Your task to perform on an android device: Search for razer nari on newegg.com, select the first entry, and add it to the cart. Image 0: 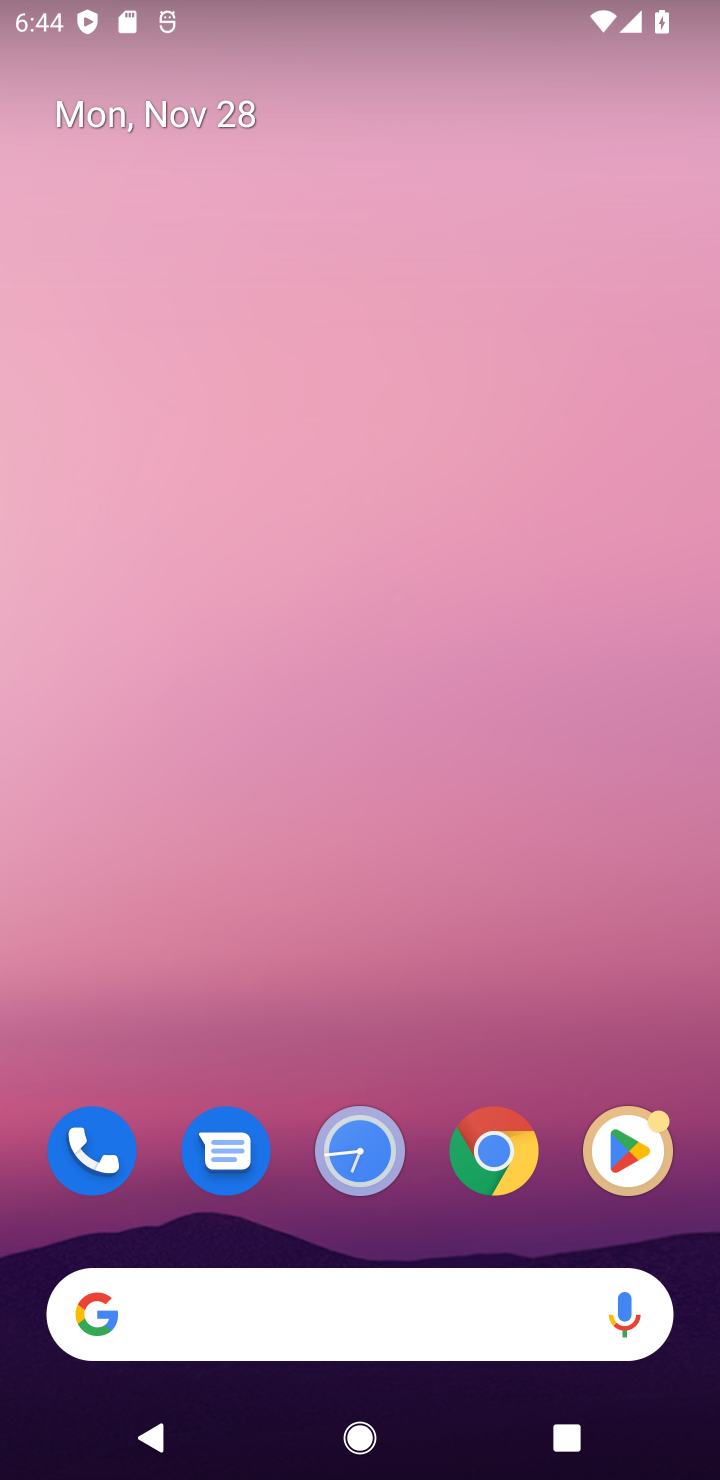
Step 0: click (358, 1323)
Your task to perform on an android device: Search for razer nari on newegg.com, select the first entry, and add it to the cart. Image 1: 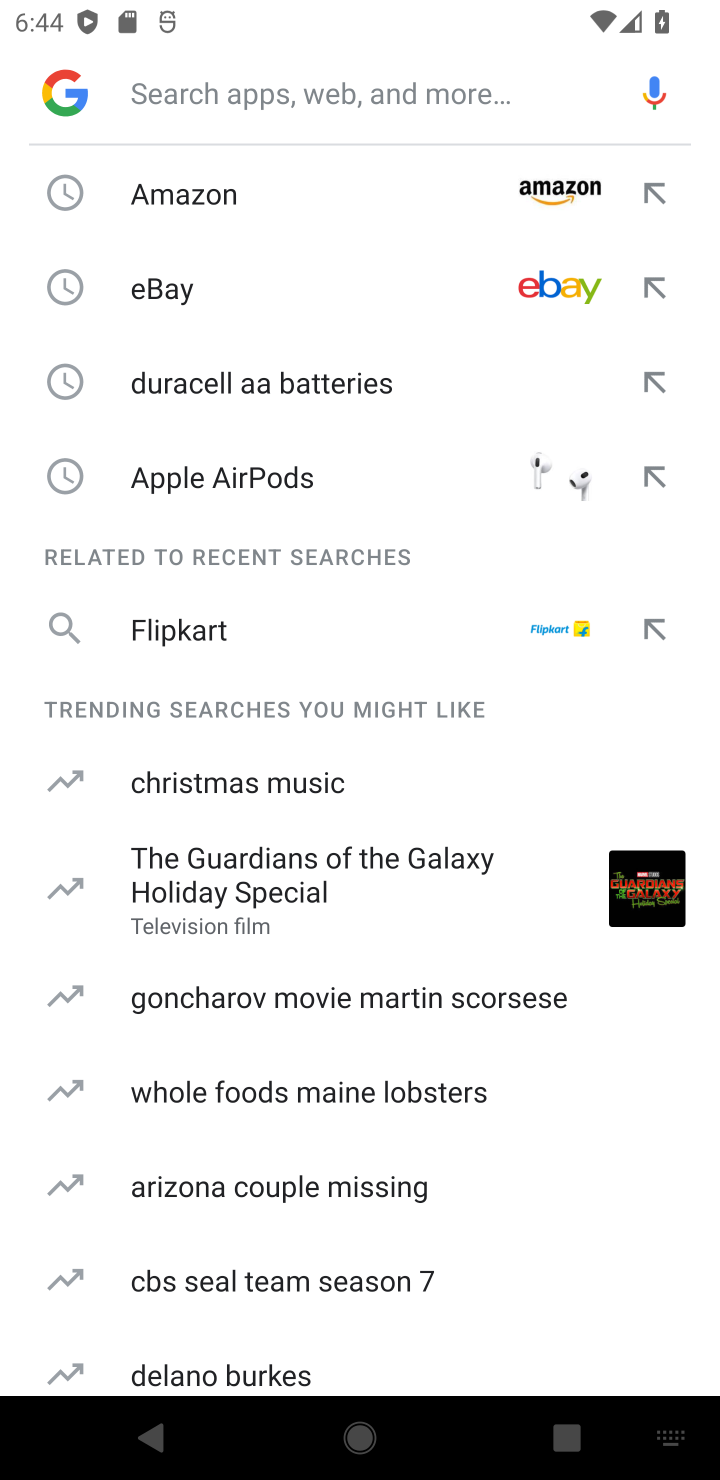
Step 1: type "newegg.com"
Your task to perform on an android device: Search for razer nari on newegg.com, select the first entry, and add it to the cart. Image 2: 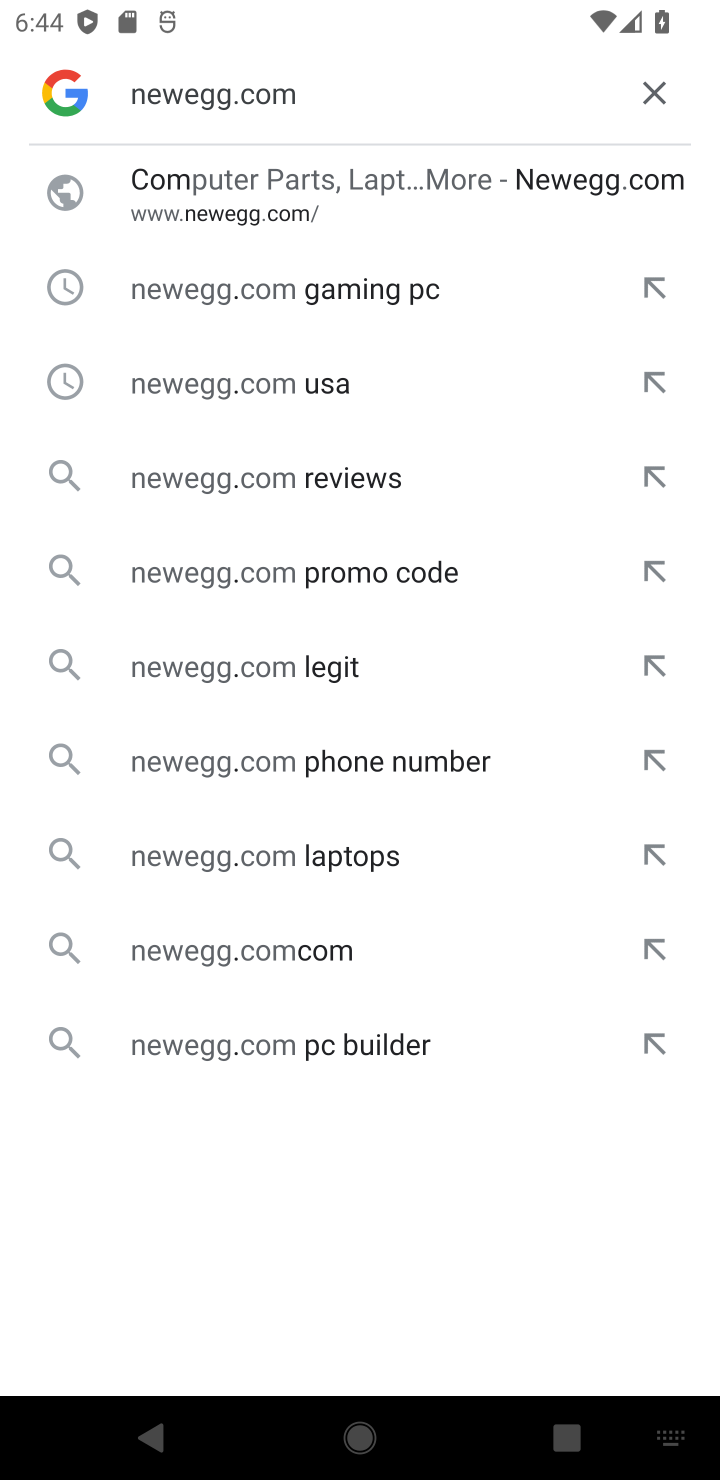
Step 2: click (278, 237)
Your task to perform on an android device: Search for razer nari on newegg.com, select the first entry, and add it to the cart. Image 3: 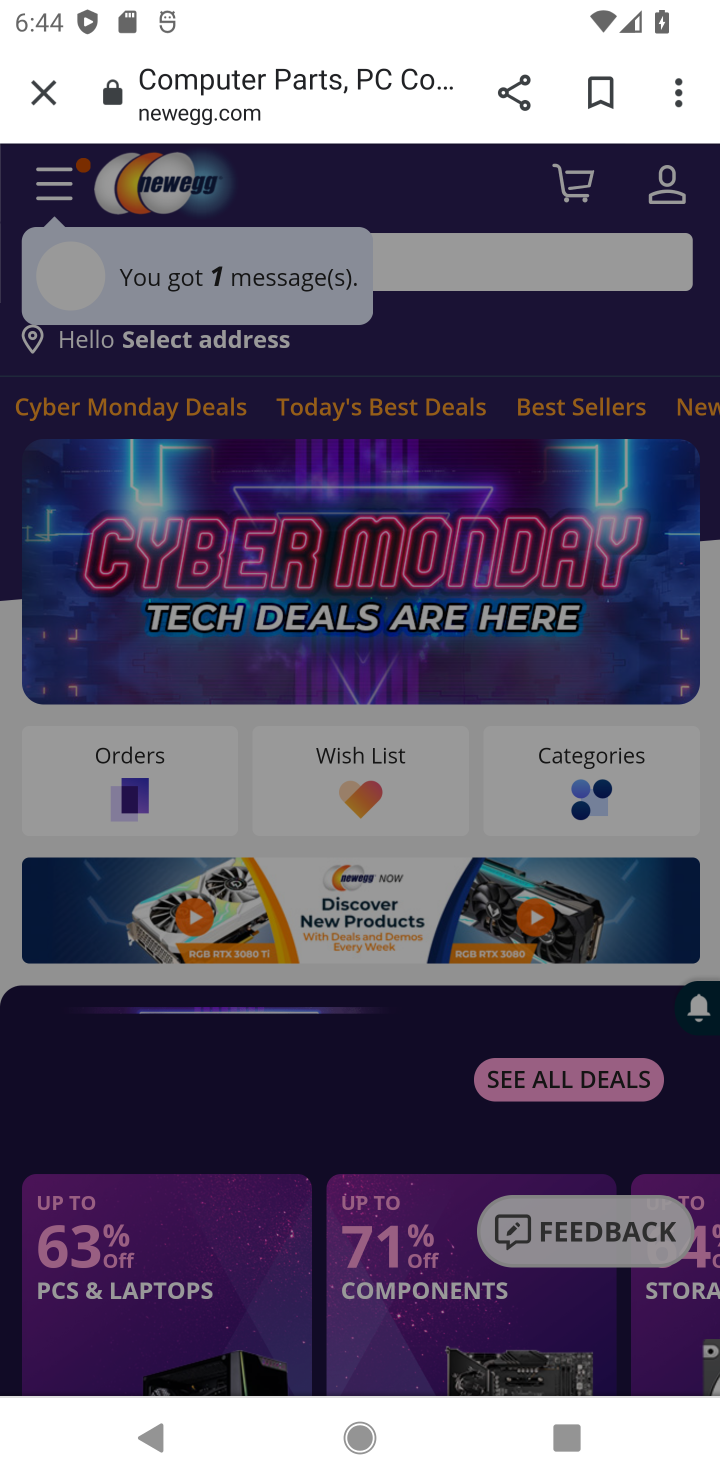
Step 3: click (329, 253)
Your task to perform on an android device: Search for razer nari on newegg.com, select the first entry, and add it to the cart. Image 4: 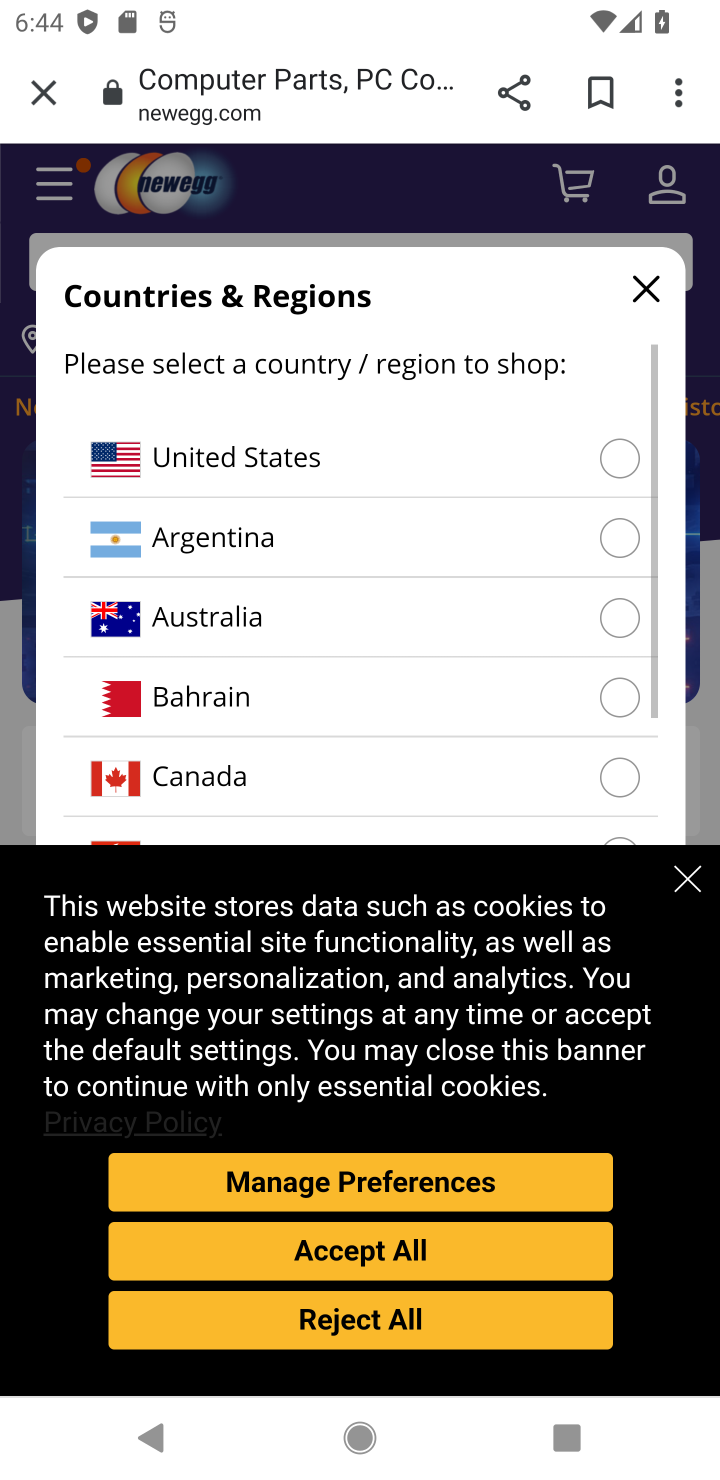
Step 4: click (390, 464)
Your task to perform on an android device: Search for razer nari on newegg.com, select the first entry, and add it to the cart. Image 5: 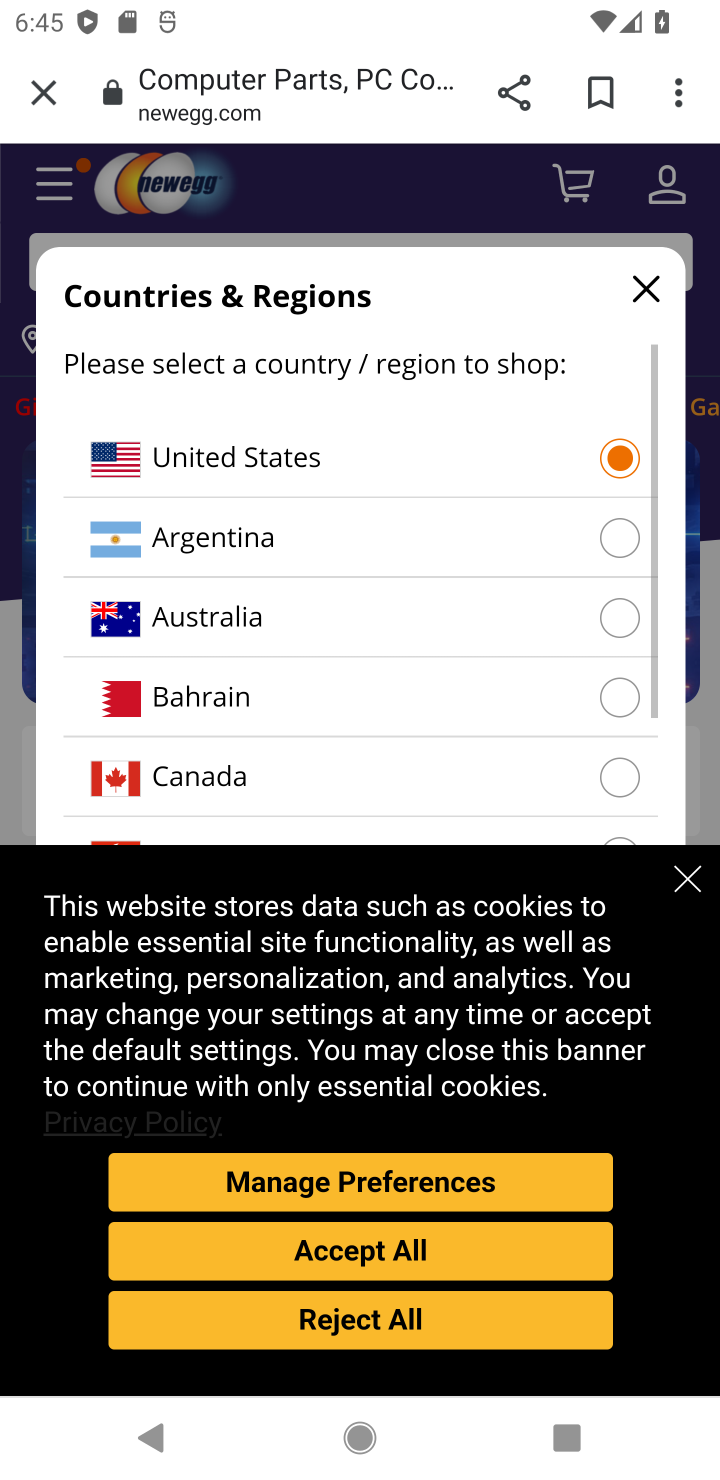
Step 5: click (435, 1266)
Your task to perform on an android device: Search for razer nari on newegg.com, select the first entry, and add it to the cart. Image 6: 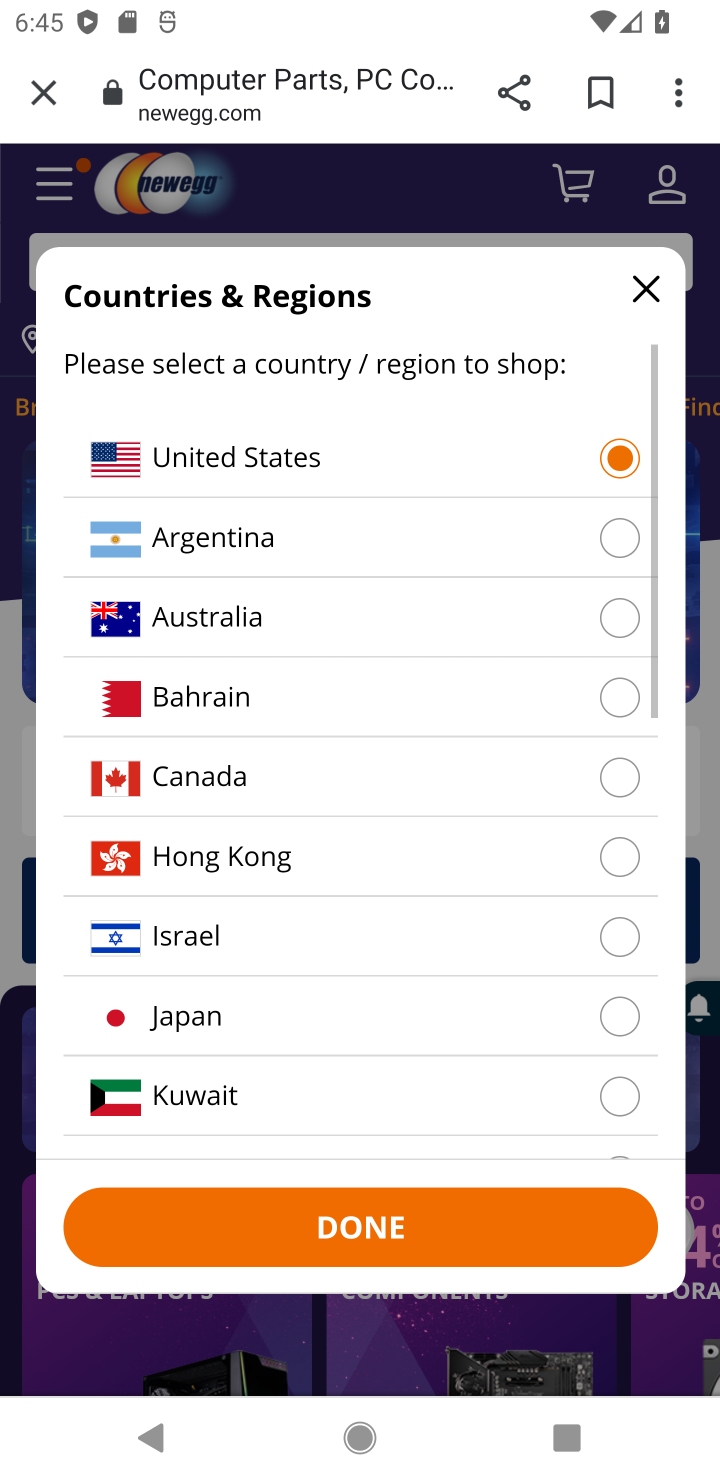
Step 6: click (418, 1242)
Your task to perform on an android device: Search for razer nari on newegg.com, select the first entry, and add it to the cart. Image 7: 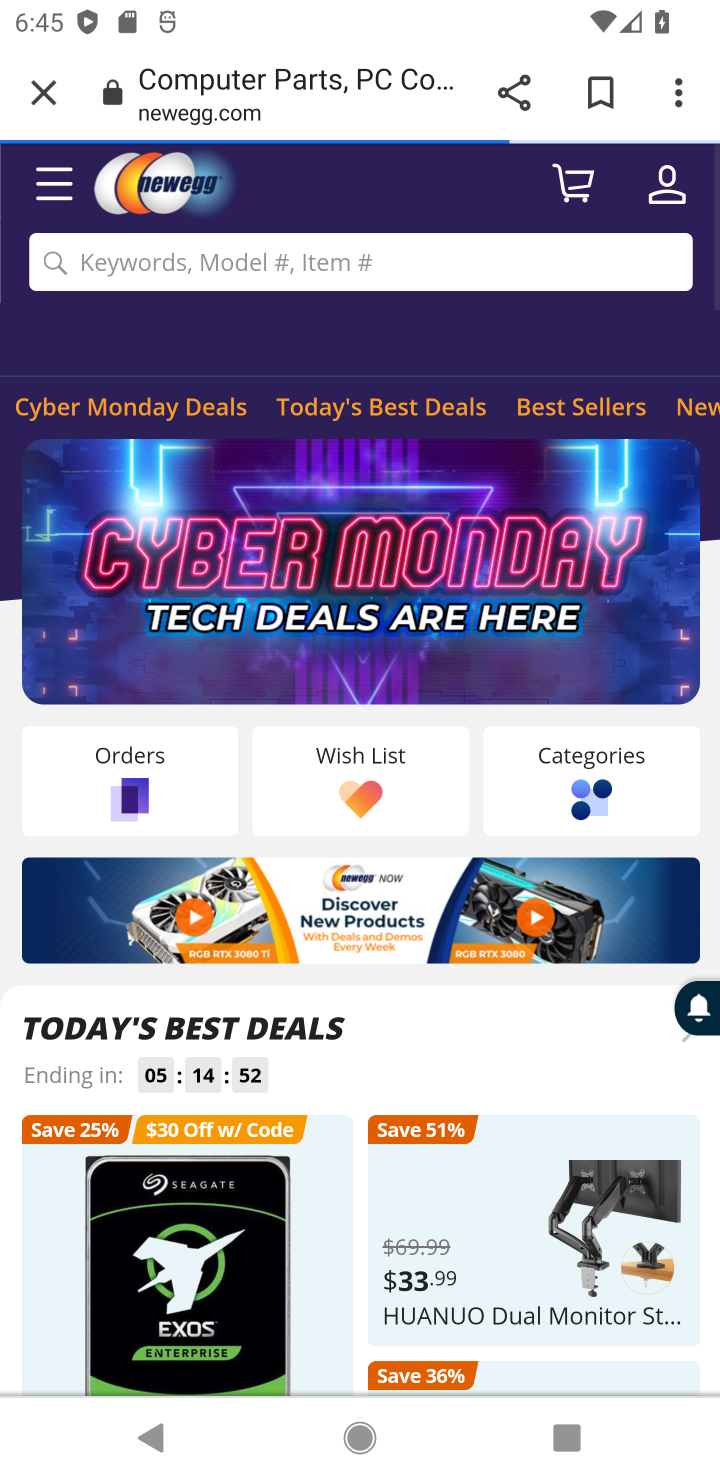
Step 7: click (198, 237)
Your task to perform on an android device: Search for razer nari on newegg.com, select the first entry, and add it to the cart. Image 8: 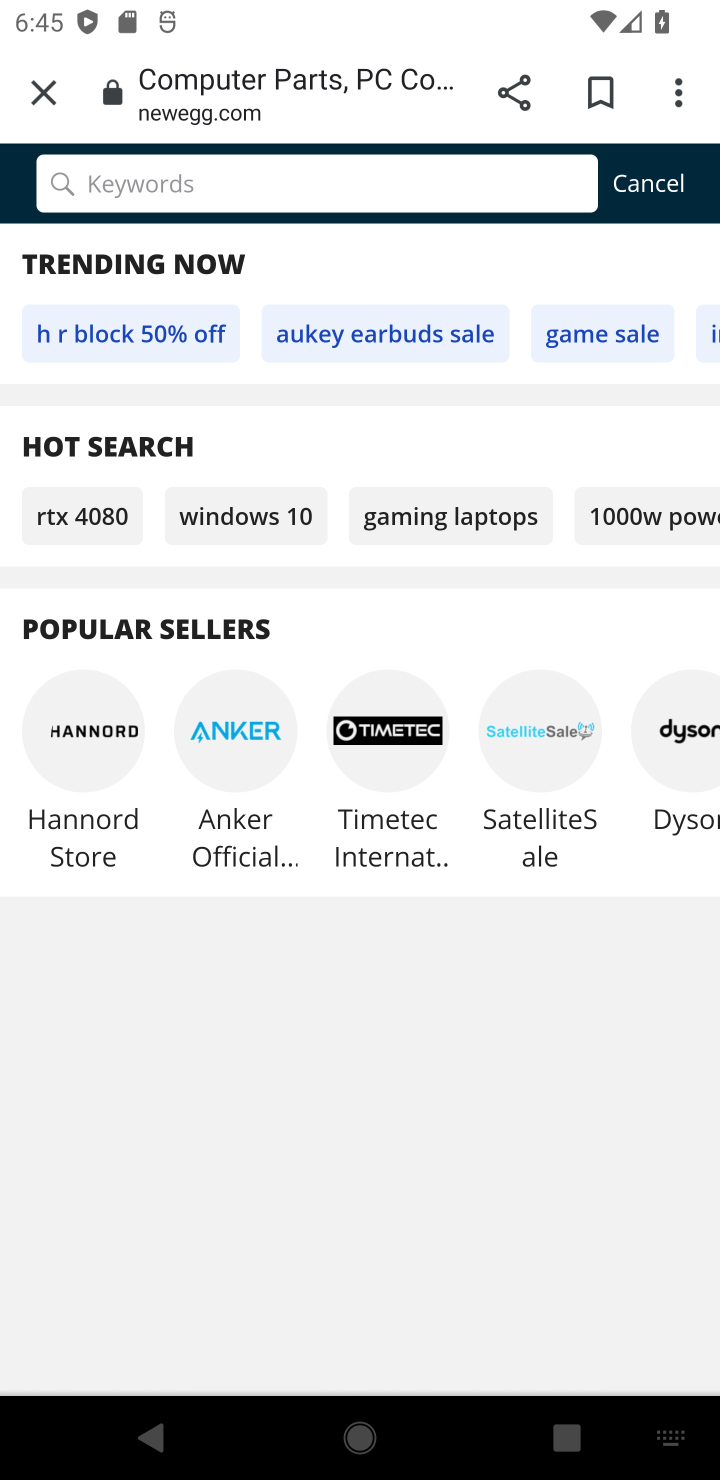
Step 8: type "razer nari"
Your task to perform on an android device: Search for razer nari on newegg.com, select the first entry, and add it to the cart. Image 9: 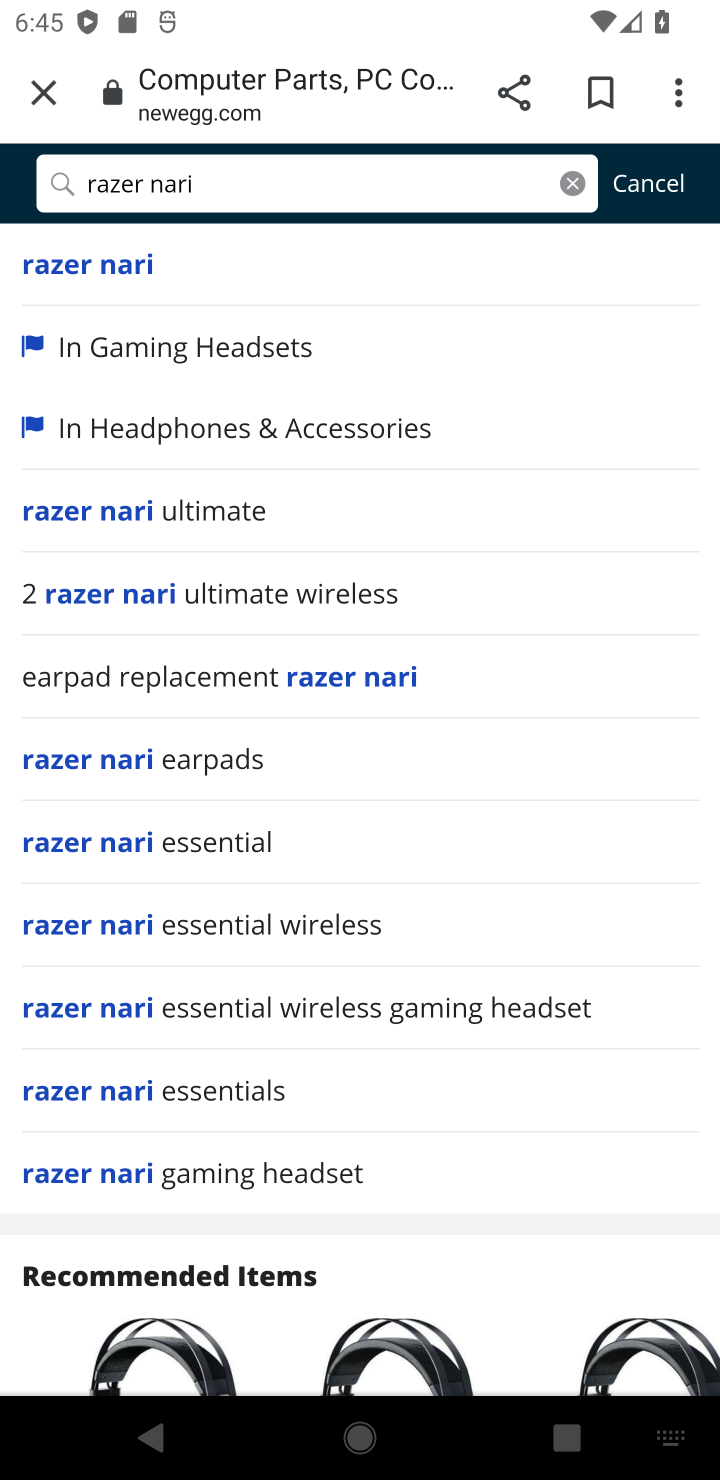
Step 9: click (118, 280)
Your task to perform on an android device: Search for razer nari on newegg.com, select the first entry, and add it to the cart. Image 10: 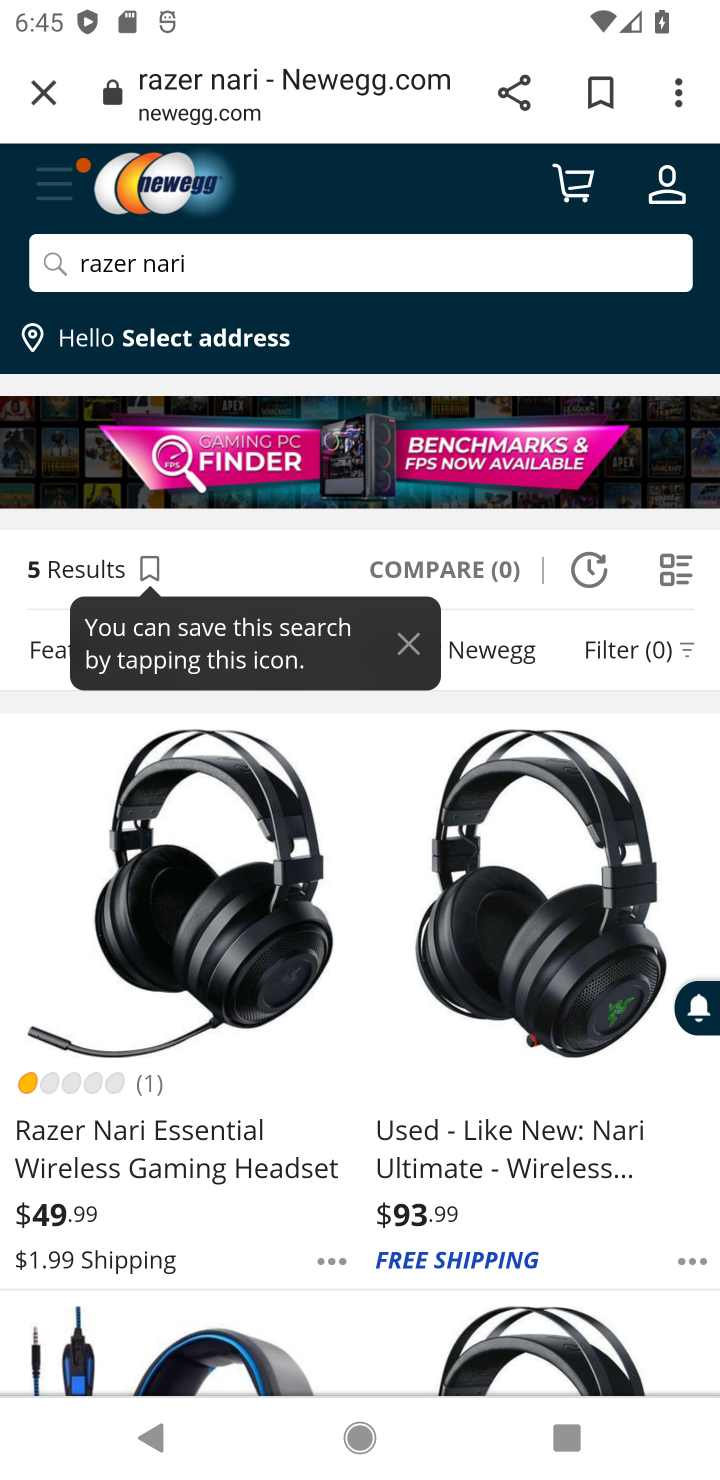
Step 10: click (137, 1100)
Your task to perform on an android device: Search for razer nari on newegg.com, select the first entry, and add it to the cart. Image 11: 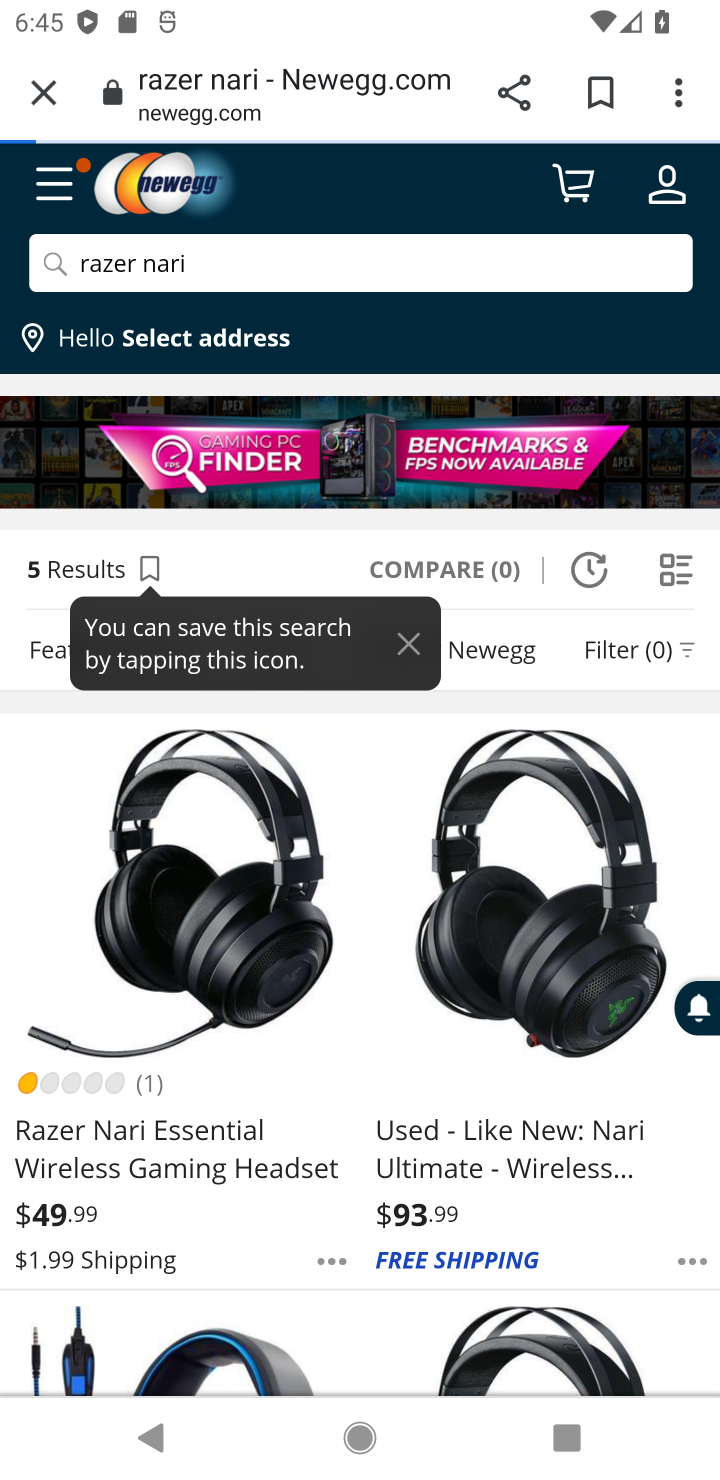
Step 11: click (130, 1146)
Your task to perform on an android device: Search for razer nari on newegg.com, select the first entry, and add it to the cart. Image 12: 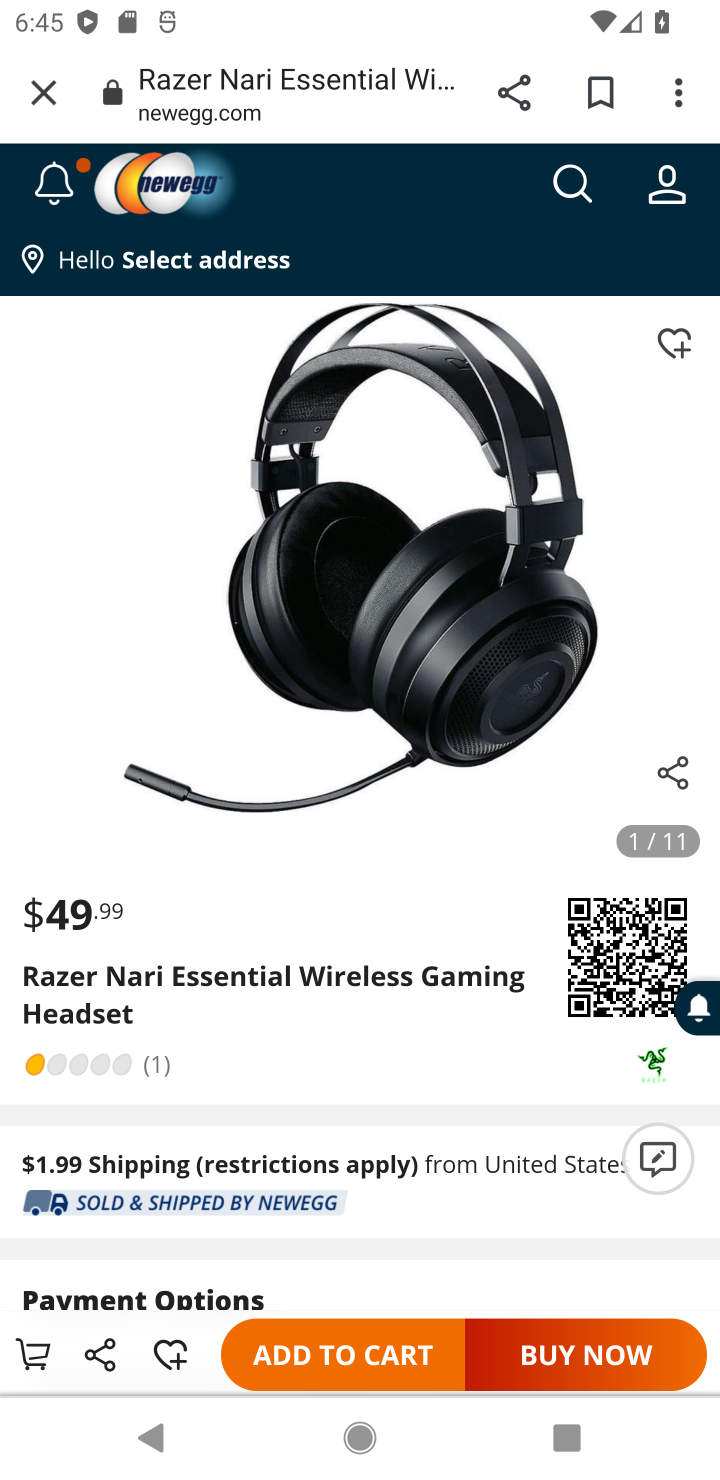
Step 12: click (306, 1336)
Your task to perform on an android device: Search for razer nari on newegg.com, select the first entry, and add it to the cart. Image 13: 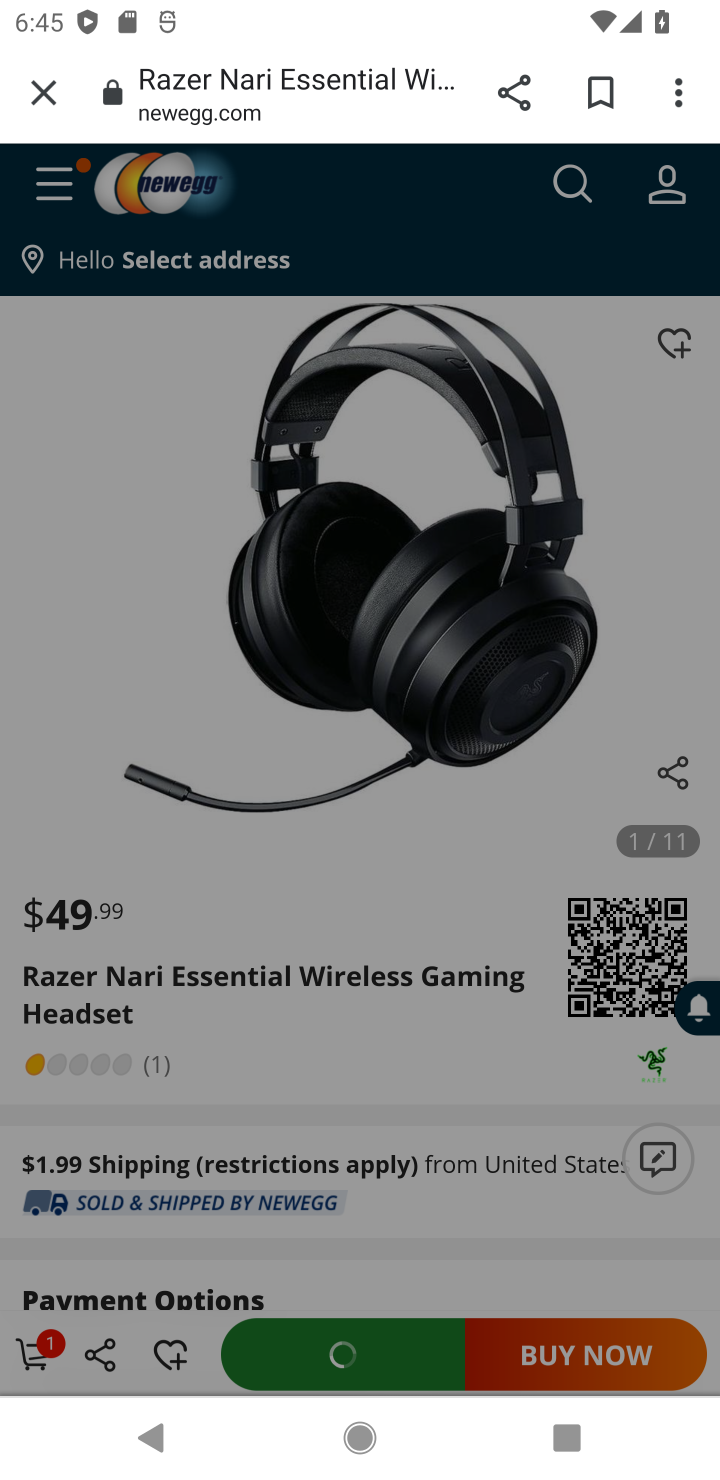
Step 13: task complete